Your task to perform on an android device: turn off location history Image 0: 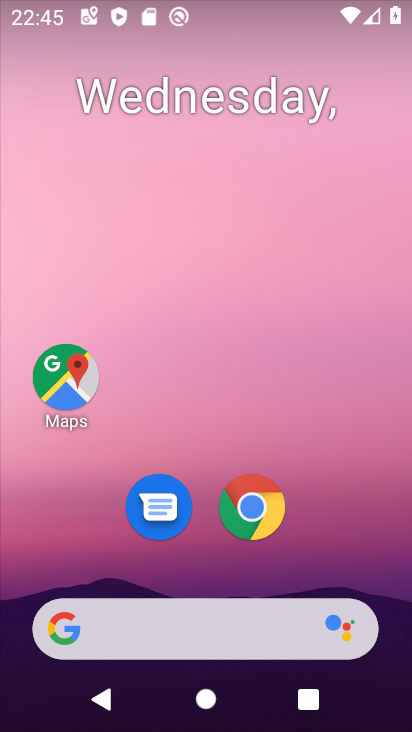
Step 0: drag from (353, 566) to (356, 254)
Your task to perform on an android device: turn off location history Image 1: 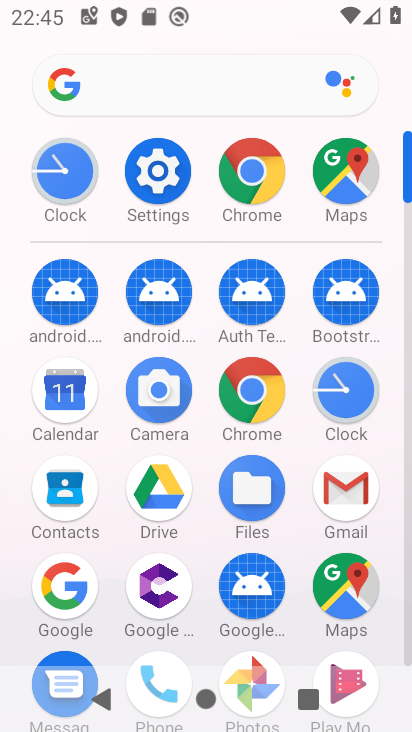
Step 1: click (164, 168)
Your task to perform on an android device: turn off location history Image 2: 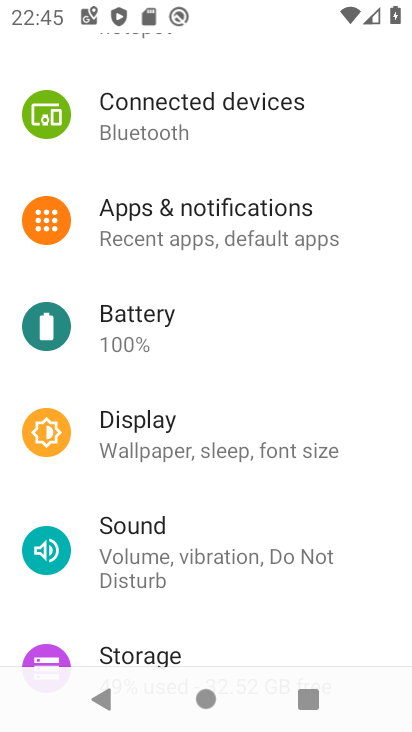
Step 2: drag from (244, 614) to (296, 134)
Your task to perform on an android device: turn off location history Image 3: 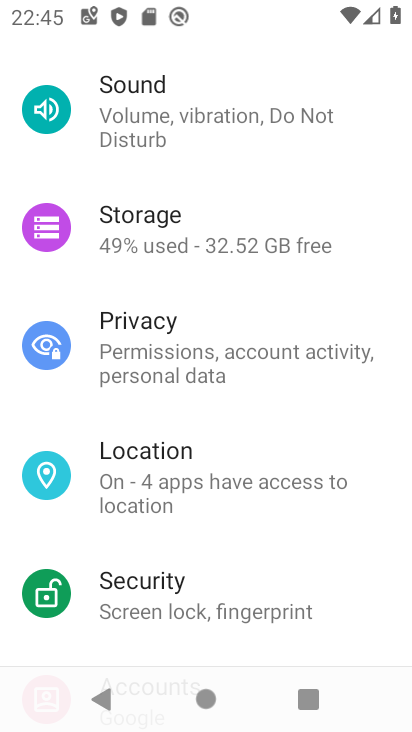
Step 3: drag from (207, 595) to (355, 176)
Your task to perform on an android device: turn off location history Image 4: 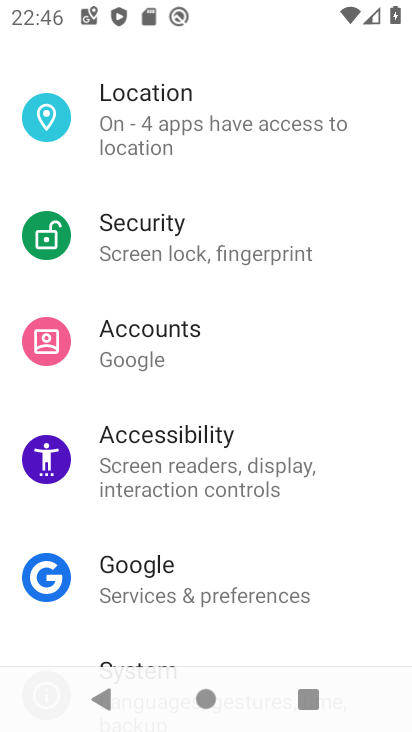
Step 4: click (183, 123)
Your task to perform on an android device: turn off location history Image 5: 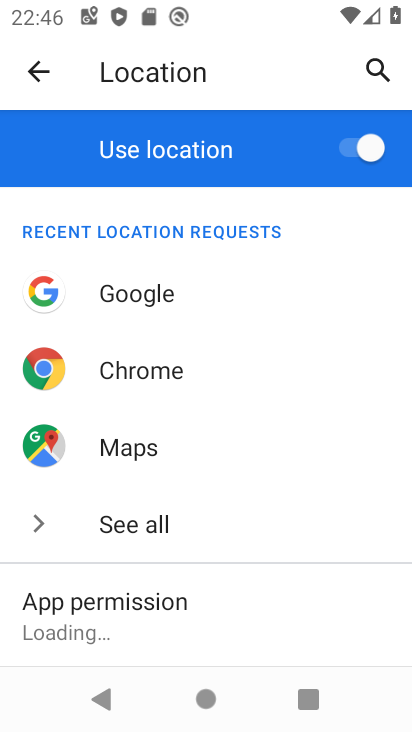
Step 5: drag from (190, 572) to (246, 166)
Your task to perform on an android device: turn off location history Image 6: 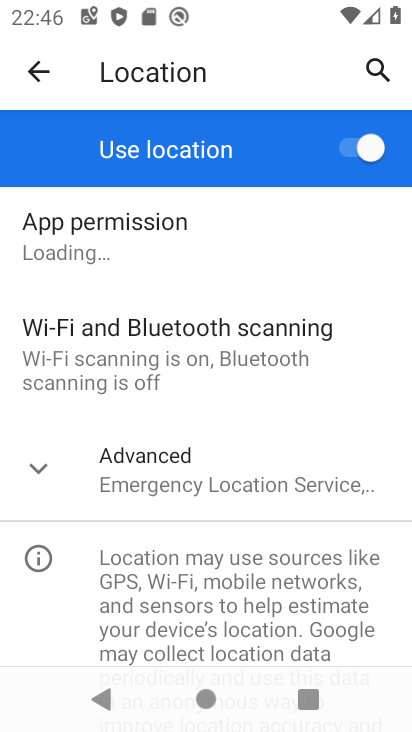
Step 6: click (145, 503)
Your task to perform on an android device: turn off location history Image 7: 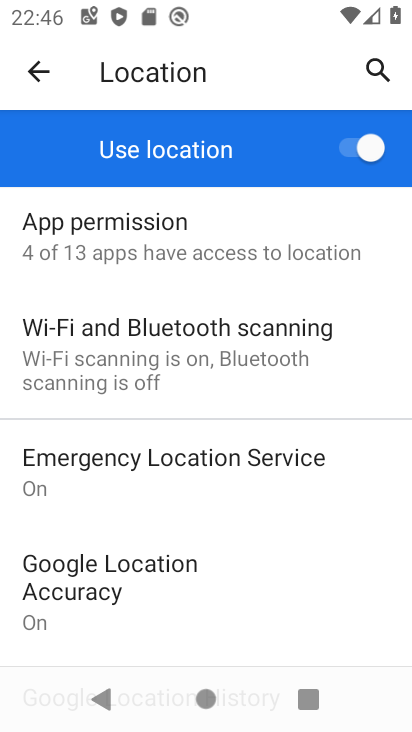
Step 7: drag from (181, 553) to (242, 219)
Your task to perform on an android device: turn off location history Image 8: 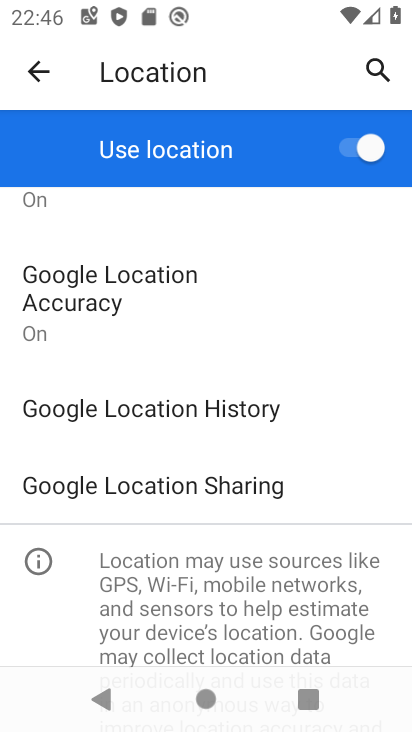
Step 8: click (184, 398)
Your task to perform on an android device: turn off location history Image 9: 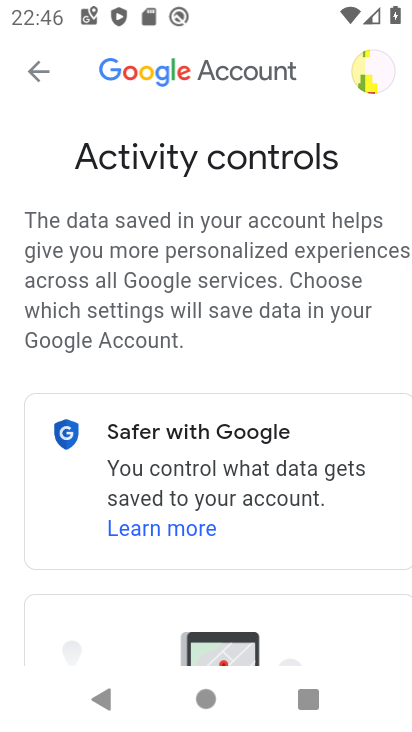
Step 9: drag from (320, 590) to (376, 184)
Your task to perform on an android device: turn off location history Image 10: 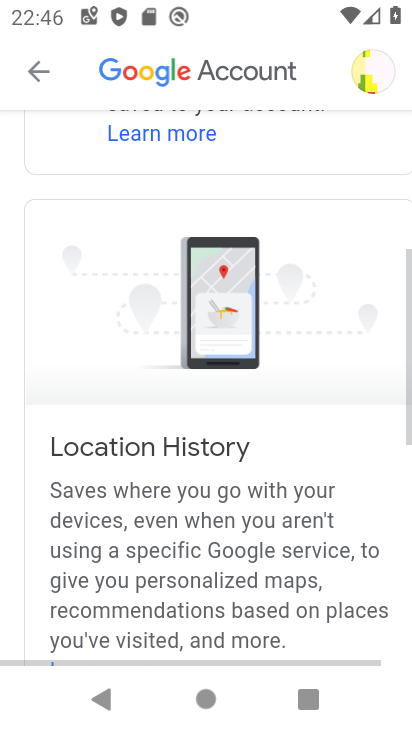
Step 10: drag from (247, 553) to (309, 156)
Your task to perform on an android device: turn off location history Image 11: 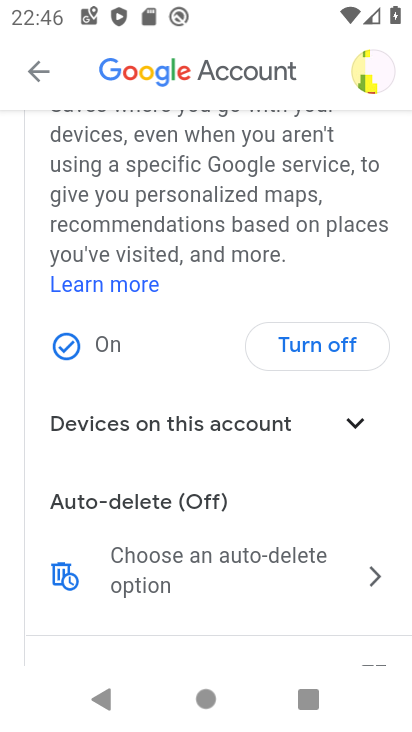
Step 11: click (302, 348)
Your task to perform on an android device: turn off location history Image 12: 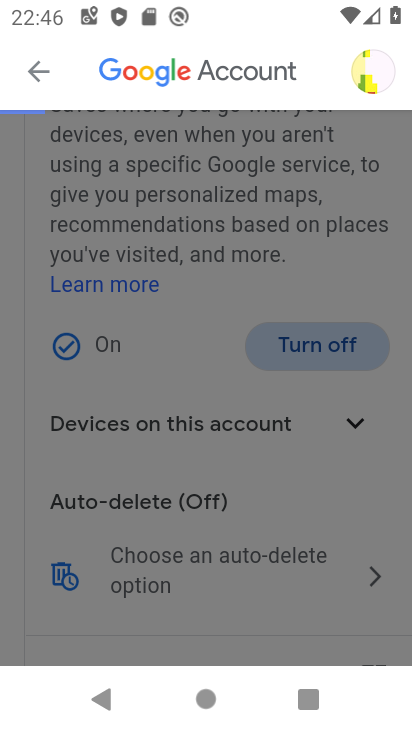
Step 12: task complete